Your task to perform on an android device: Turn on the flashlight Image 0: 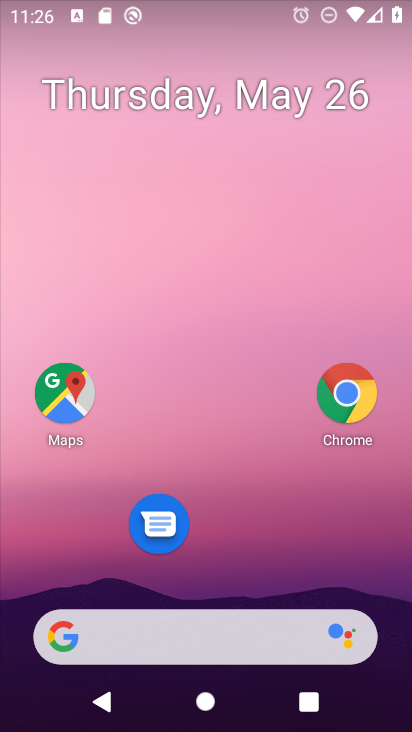
Step 0: drag from (246, 544) to (216, 18)
Your task to perform on an android device: Turn on the flashlight Image 1: 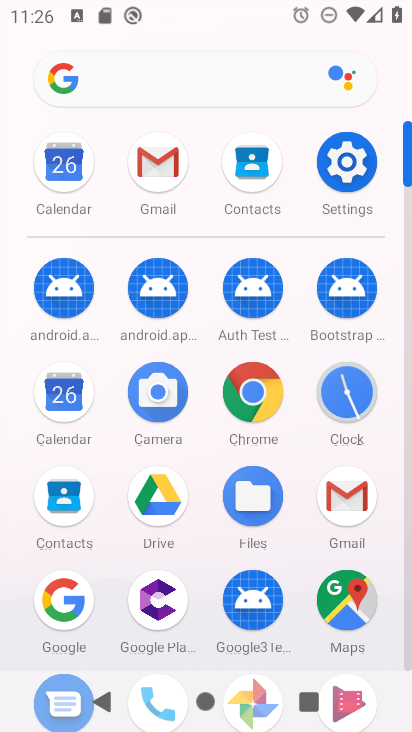
Step 1: click (341, 155)
Your task to perform on an android device: Turn on the flashlight Image 2: 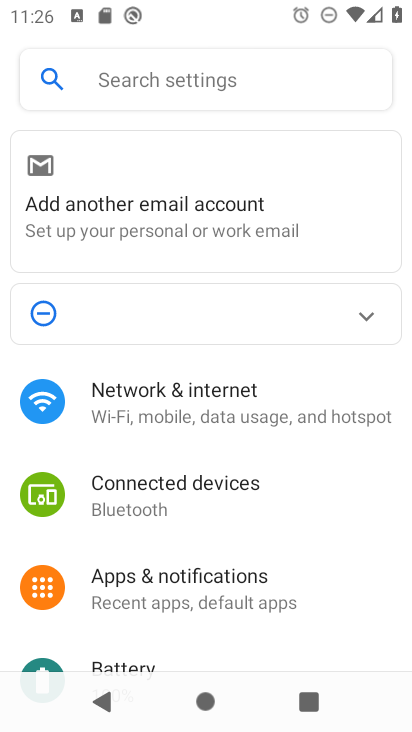
Step 2: click (292, 74)
Your task to perform on an android device: Turn on the flashlight Image 3: 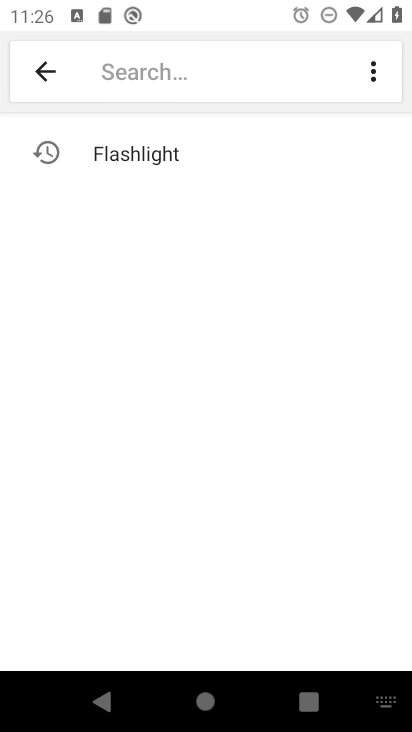
Step 3: click (156, 148)
Your task to perform on an android device: Turn on the flashlight Image 4: 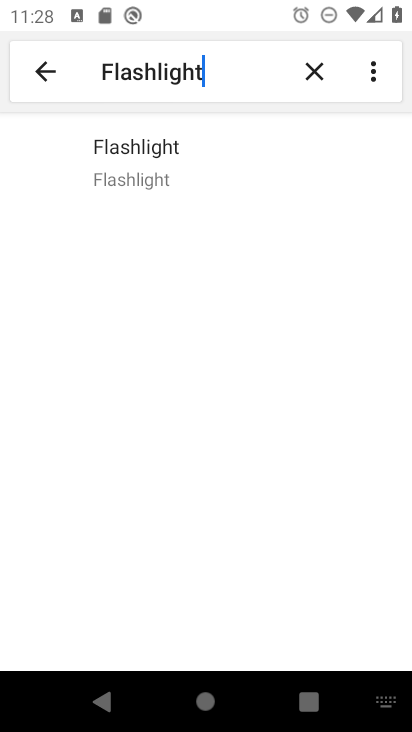
Step 4: task complete